Your task to perform on an android device: move a message to another label in the gmail app Image 0: 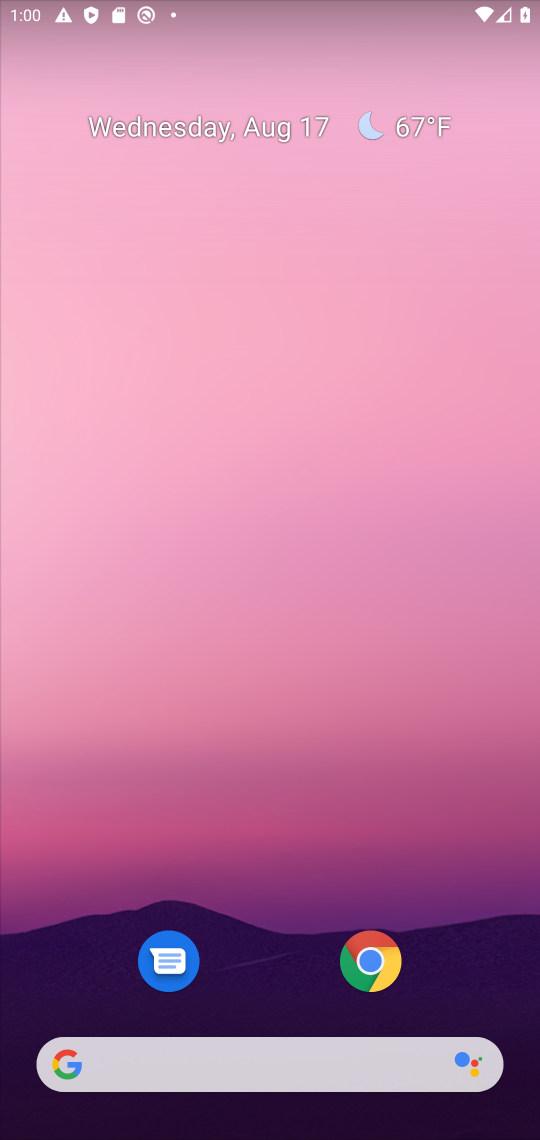
Step 0: drag from (300, 923) to (322, 265)
Your task to perform on an android device: move a message to another label in the gmail app Image 1: 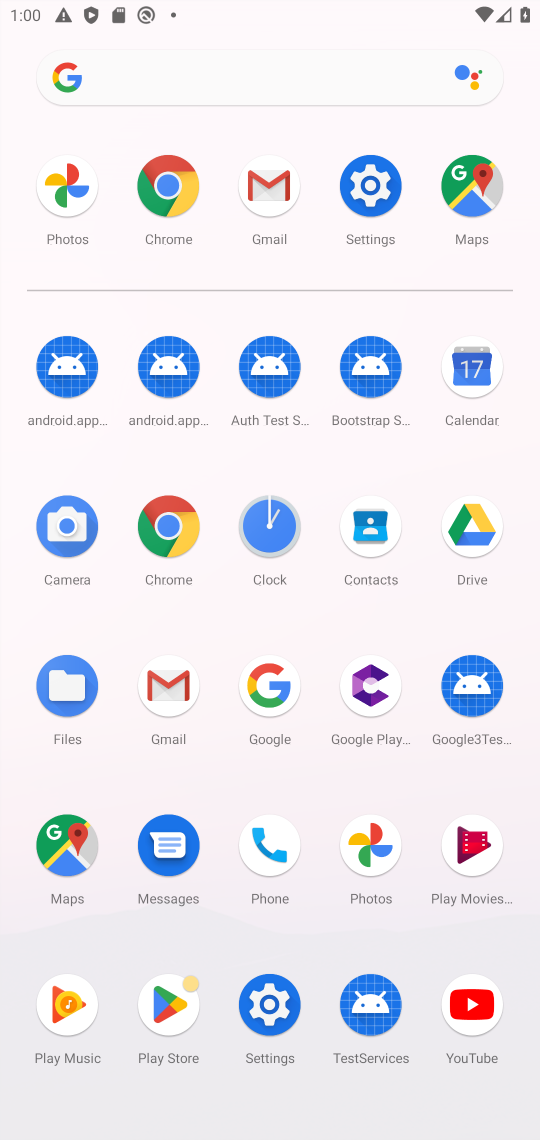
Step 1: click (175, 686)
Your task to perform on an android device: move a message to another label in the gmail app Image 2: 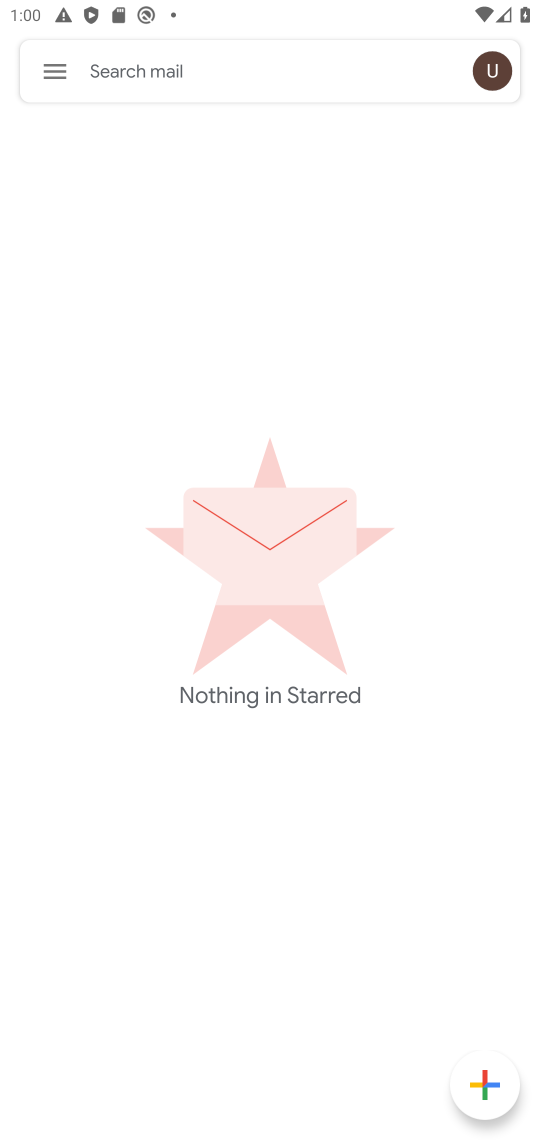
Step 2: click (47, 79)
Your task to perform on an android device: move a message to another label in the gmail app Image 3: 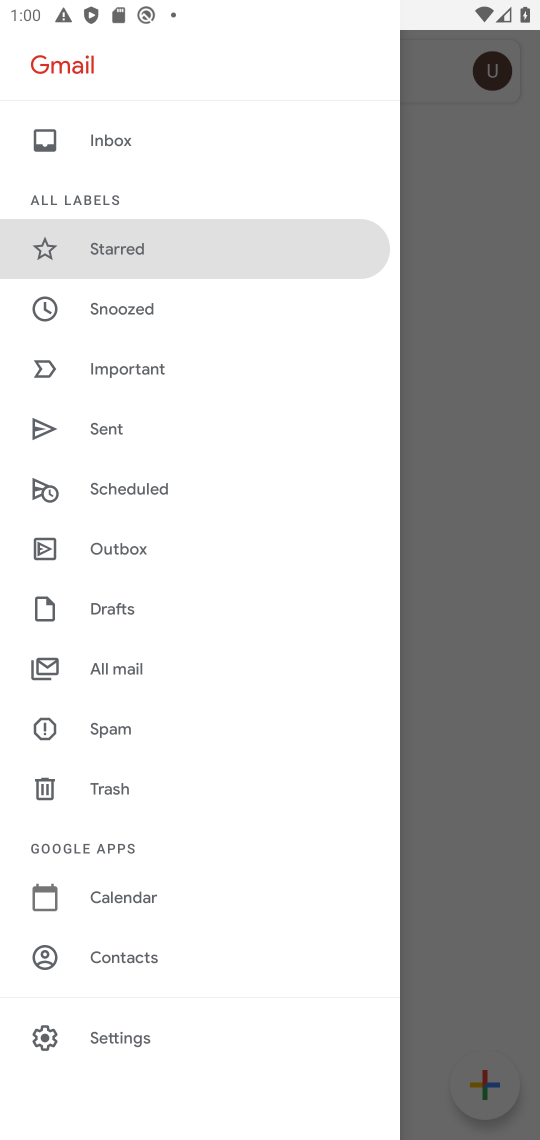
Step 3: click (144, 666)
Your task to perform on an android device: move a message to another label in the gmail app Image 4: 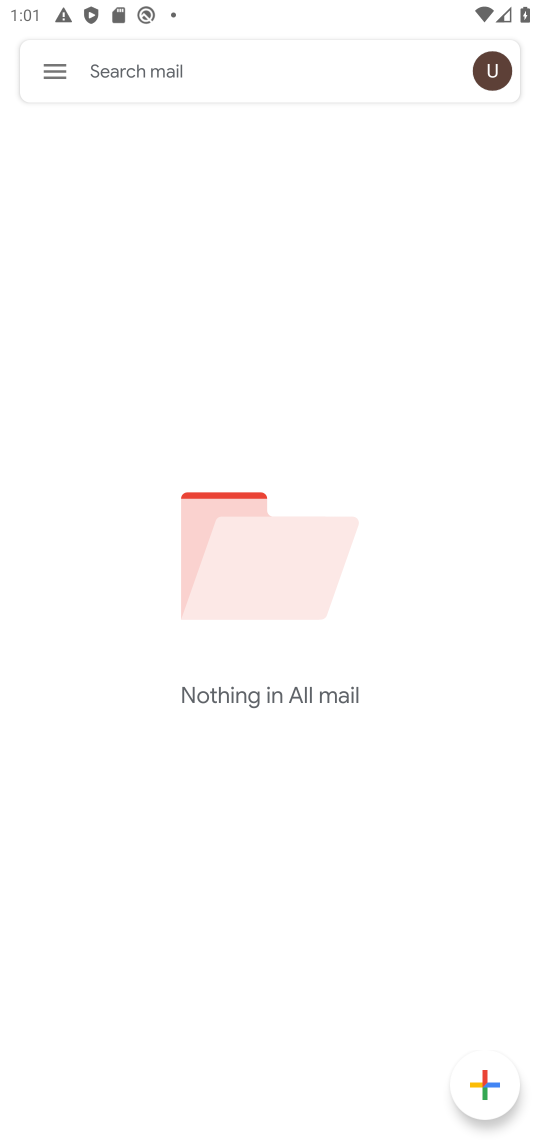
Step 4: task complete